Your task to perform on an android device: Search for good Thai restaurants Image 0: 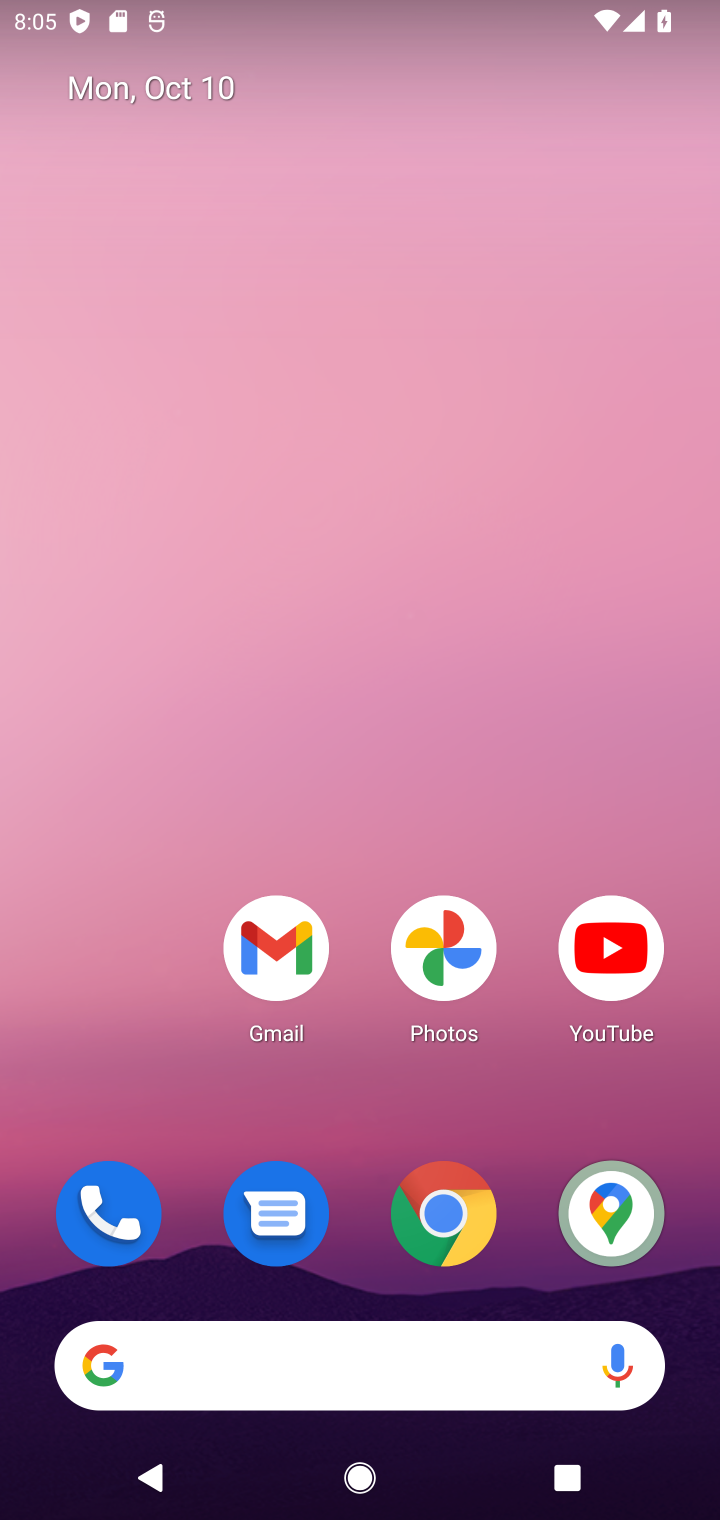
Step 0: click (289, 1362)
Your task to perform on an android device: Search for good Thai restaurants Image 1: 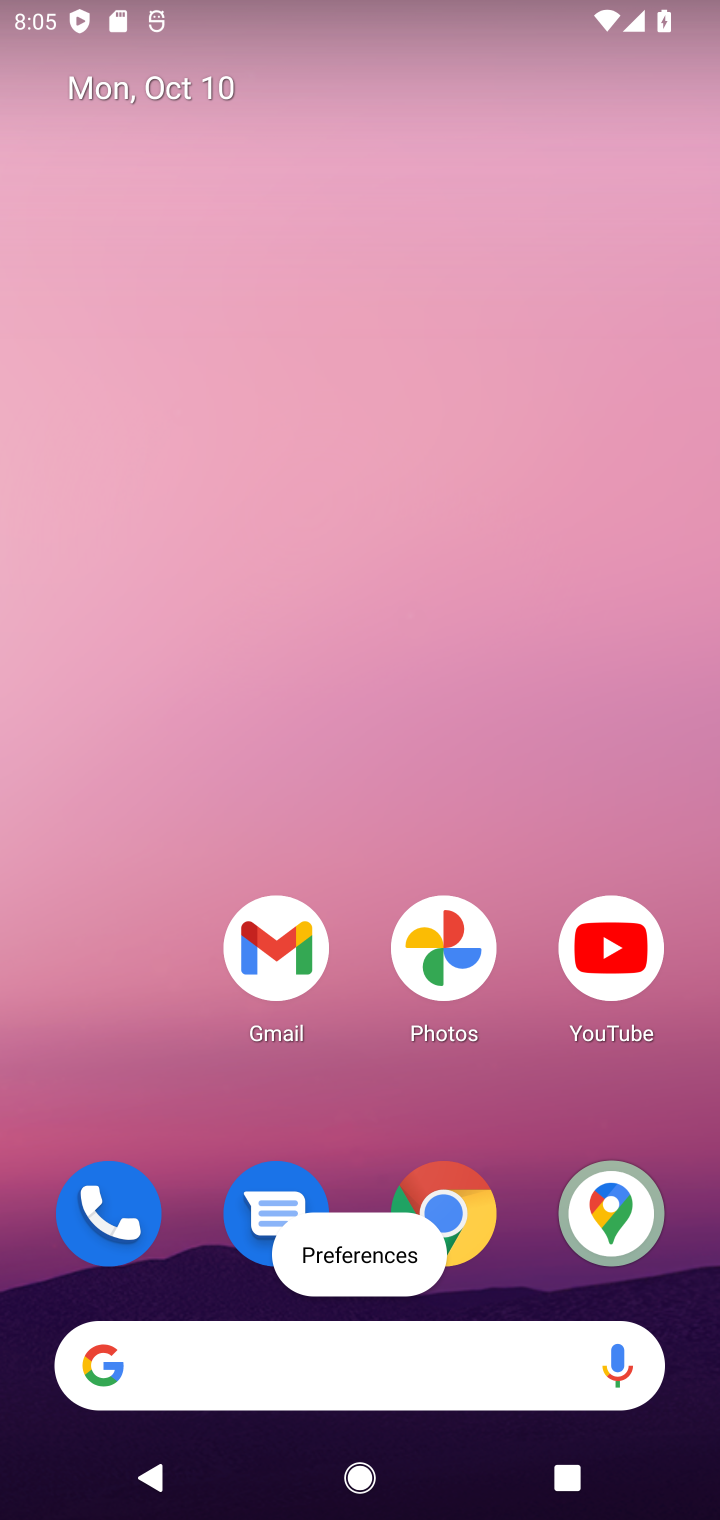
Step 1: click (251, 1373)
Your task to perform on an android device: Search for good Thai restaurants Image 2: 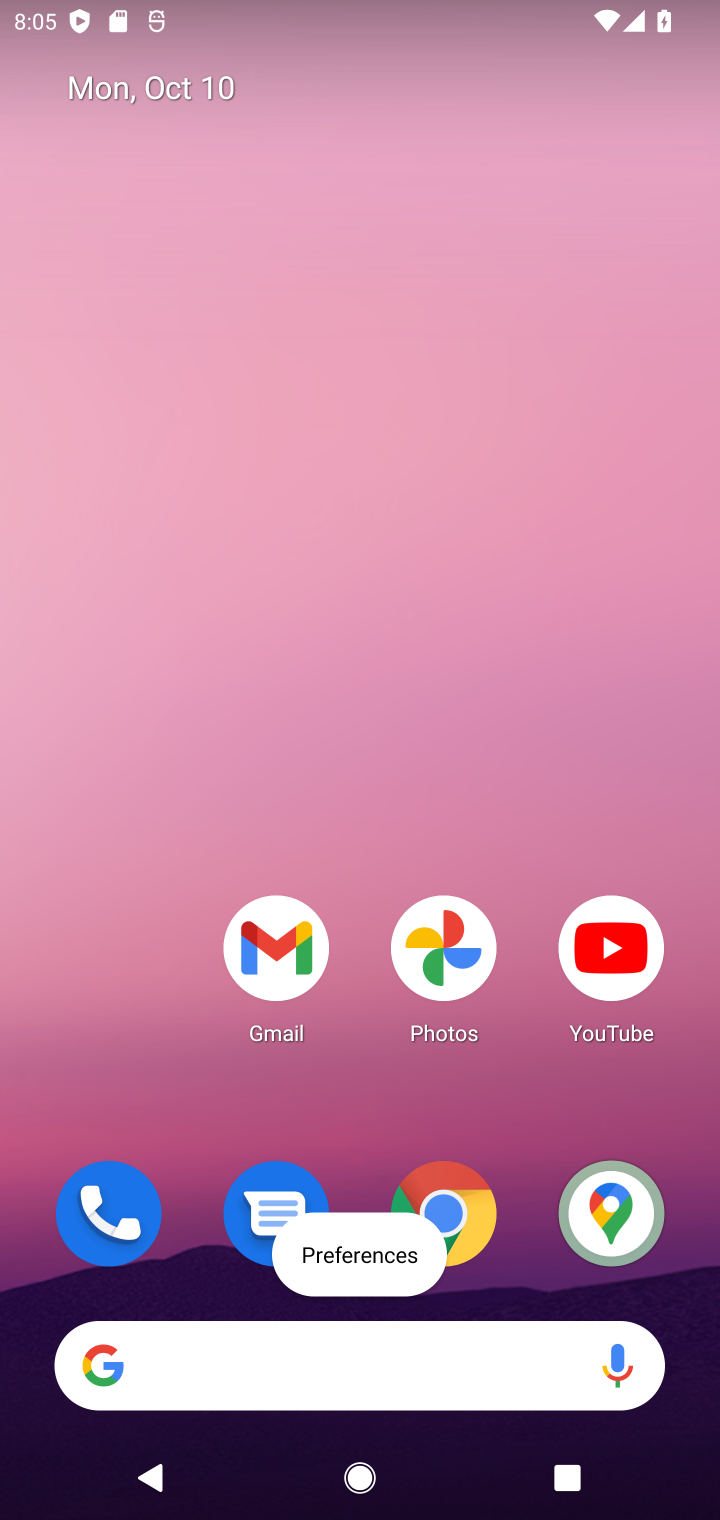
Step 2: click (307, 1373)
Your task to perform on an android device: Search for good Thai restaurants Image 3: 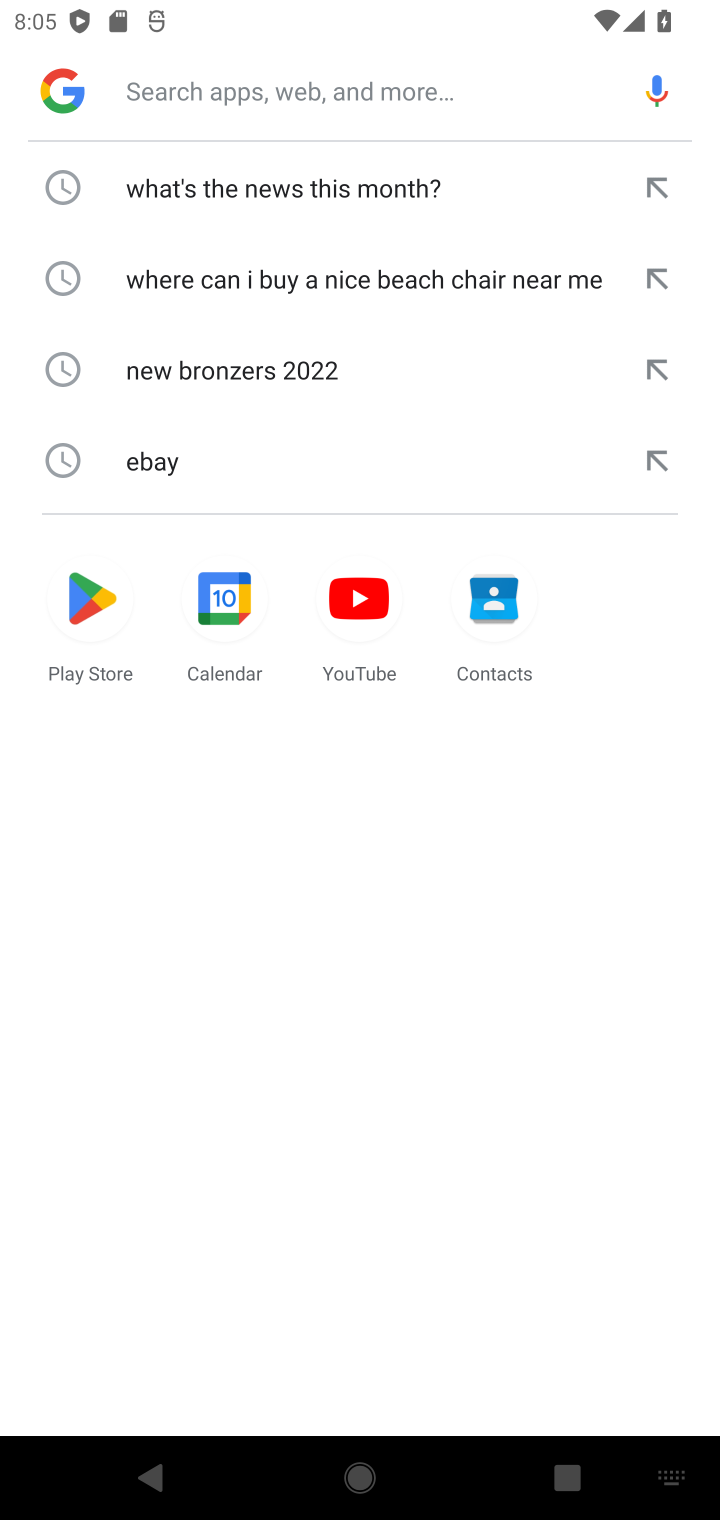
Step 3: click (219, 80)
Your task to perform on an android device: Search for good Thai restaurants Image 4: 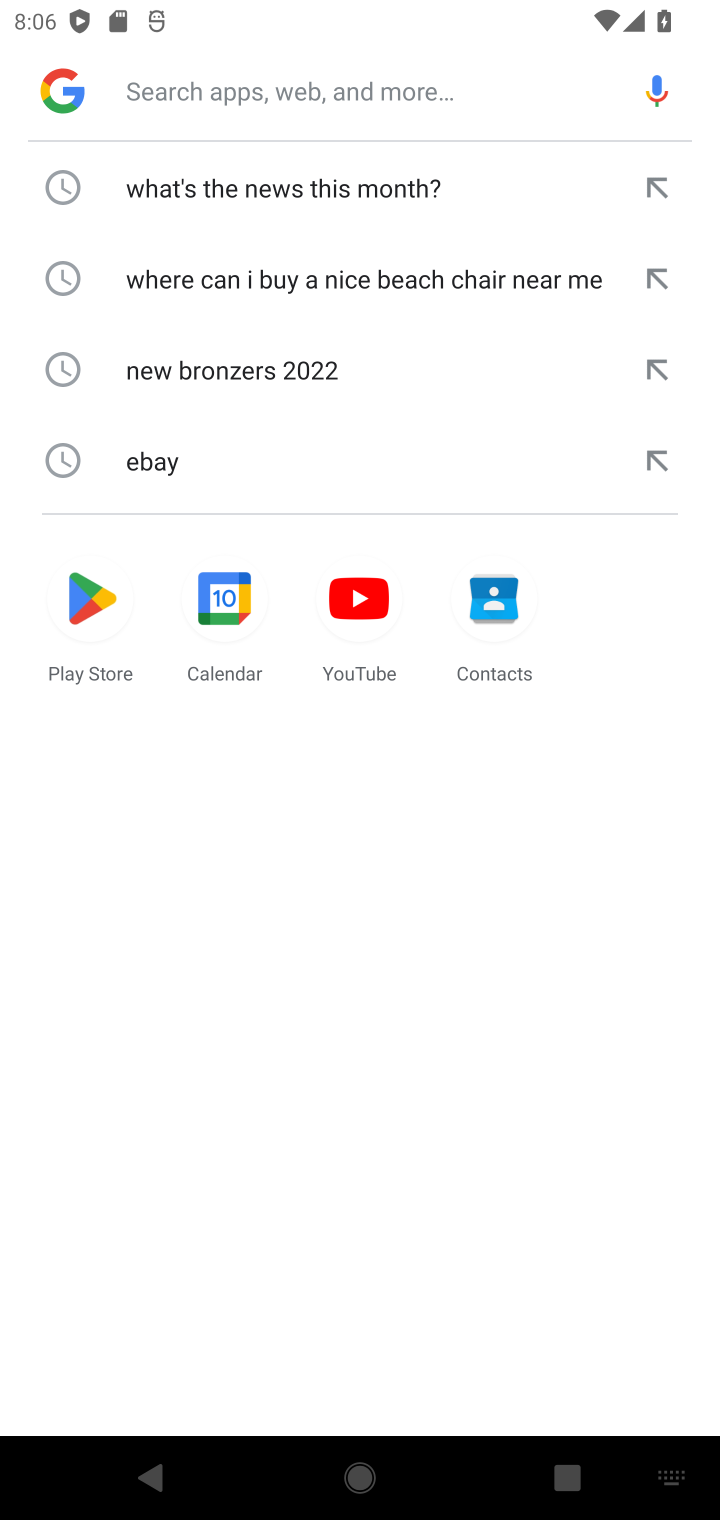
Step 4: type "Search for good Thai restaurants"
Your task to perform on an android device: Search for good Thai restaurants Image 5: 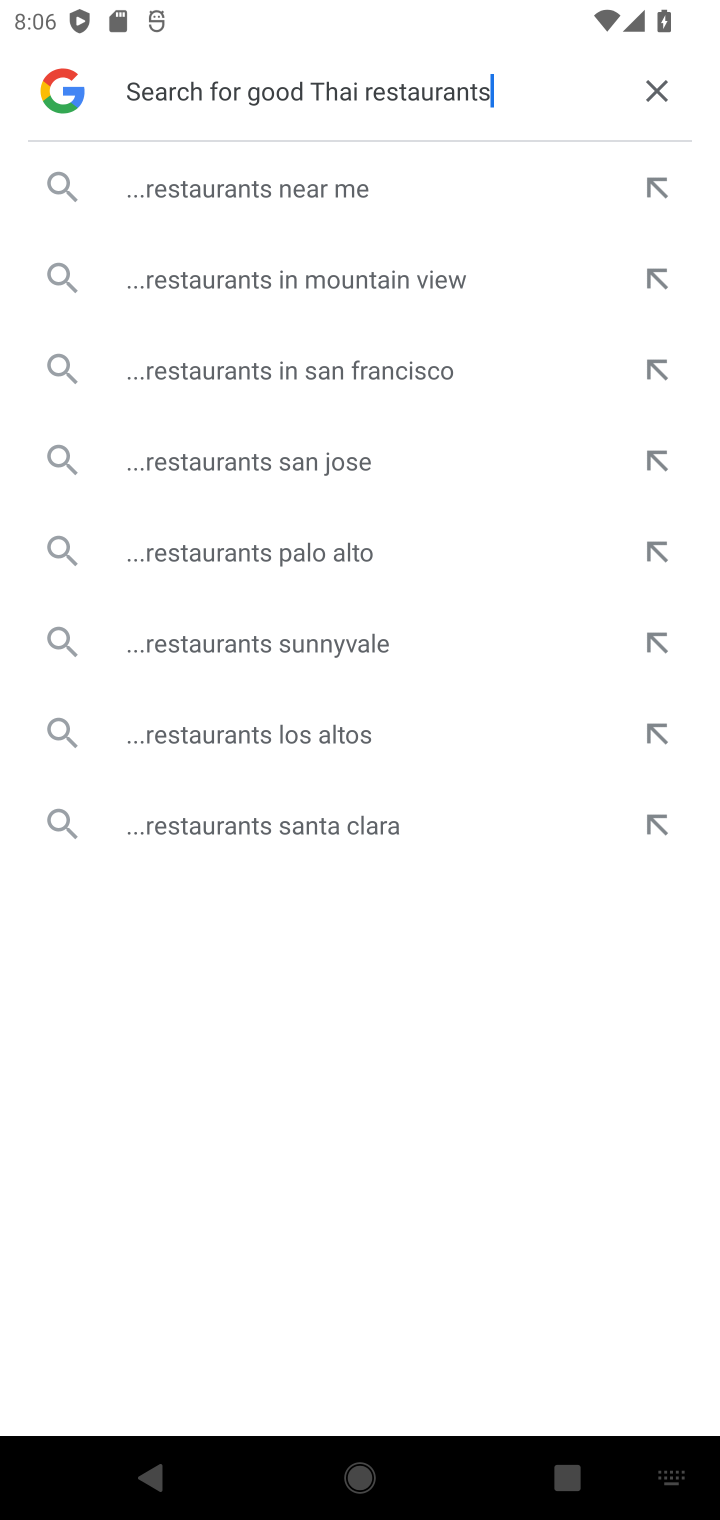
Step 5: click (364, 195)
Your task to perform on an android device: Search for good Thai restaurants Image 6: 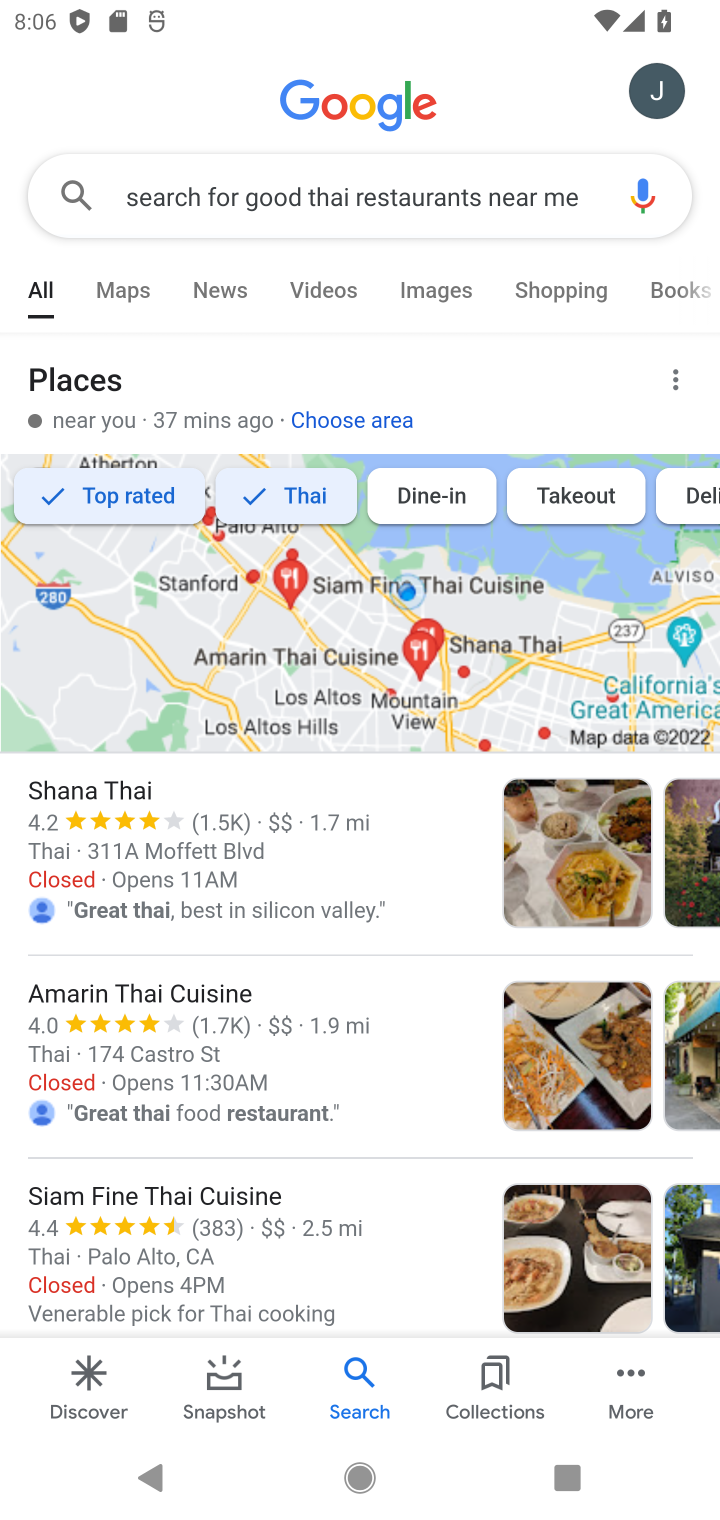
Step 6: task complete